Your task to perform on an android device: see sites visited before in the chrome app Image 0: 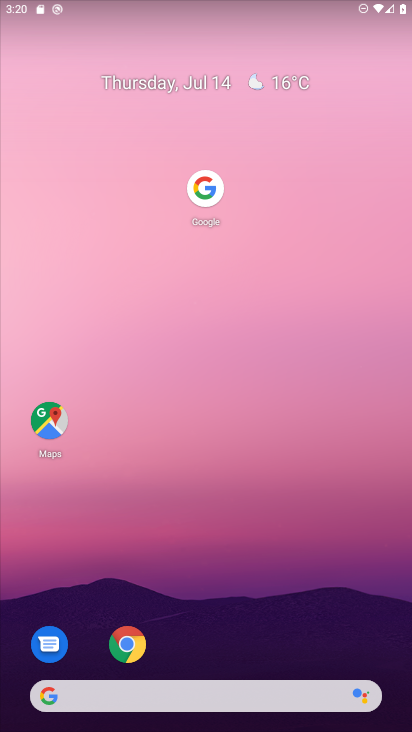
Step 0: click (227, 651)
Your task to perform on an android device: see sites visited before in the chrome app Image 1: 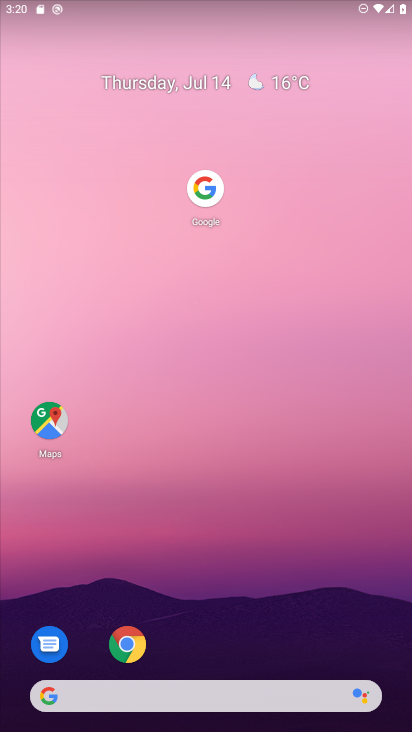
Step 1: click (135, 637)
Your task to perform on an android device: see sites visited before in the chrome app Image 2: 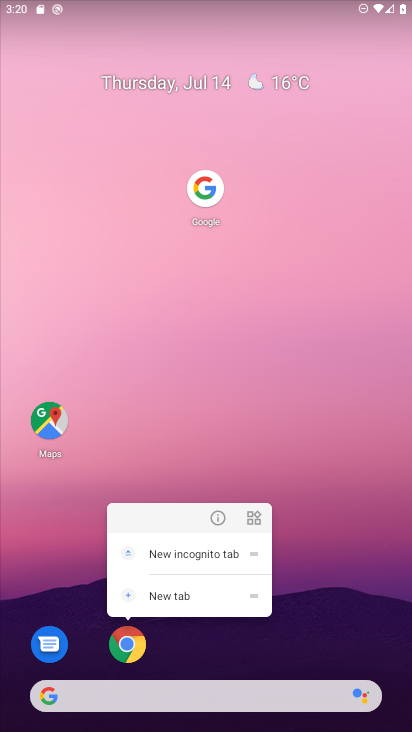
Step 2: click (117, 653)
Your task to perform on an android device: see sites visited before in the chrome app Image 3: 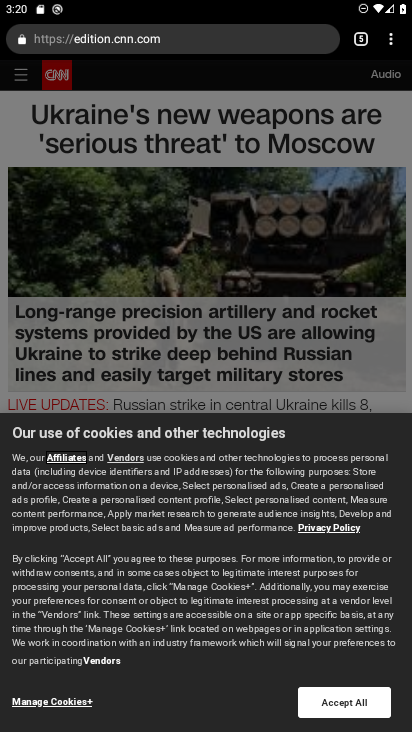
Step 3: click (386, 43)
Your task to perform on an android device: see sites visited before in the chrome app Image 4: 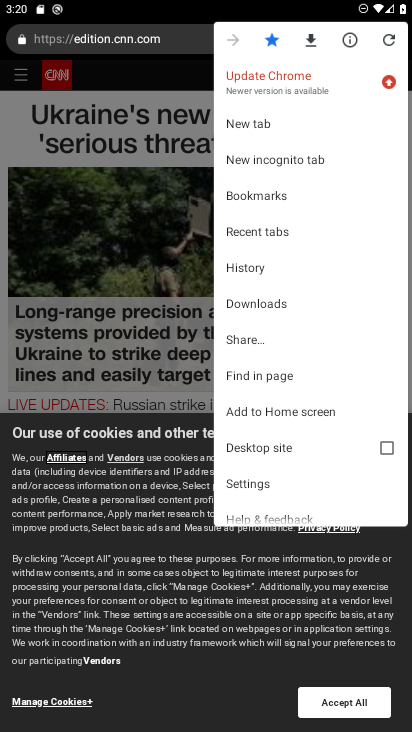
Step 4: click (282, 241)
Your task to perform on an android device: see sites visited before in the chrome app Image 5: 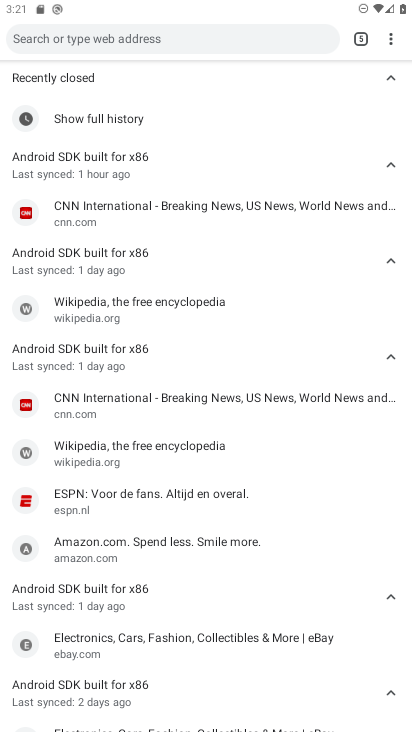
Step 5: task complete